Your task to perform on an android device: open device folders in google photos Image 0: 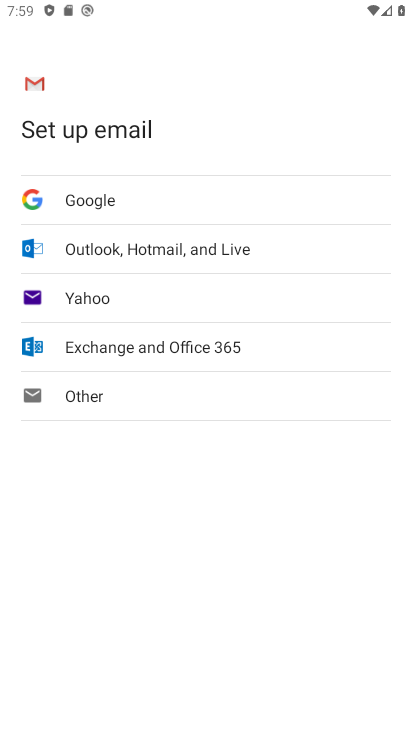
Step 0: press home button
Your task to perform on an android device: open device folders in google photos Image 1: 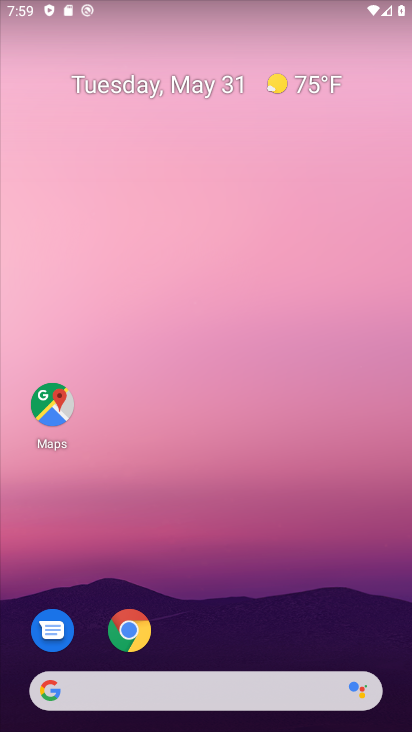
Step 1: drag from (249, 639) to (327, 197)
Your task to perform on an android device: open device folders in google photos Image 2: 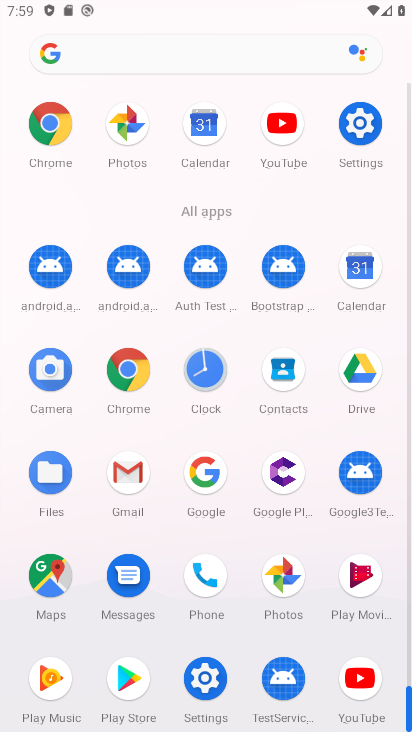
Step 2: click (287, 593)
Your task to perform on an android device: open device folders in google photos Image 3: 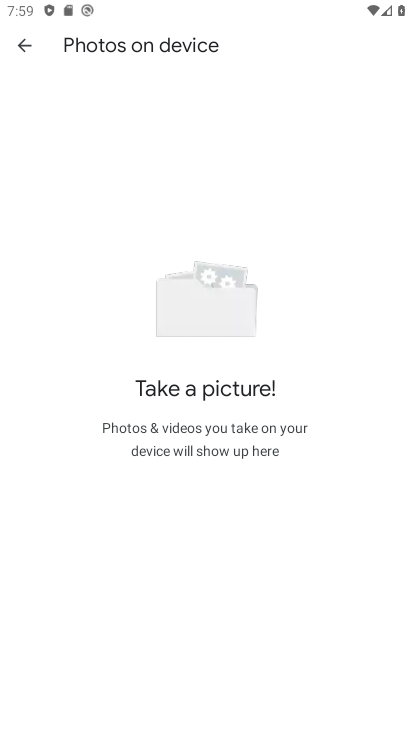
Step 3: task complete